Your task to perform on an android device: What is the news today? Image 0: 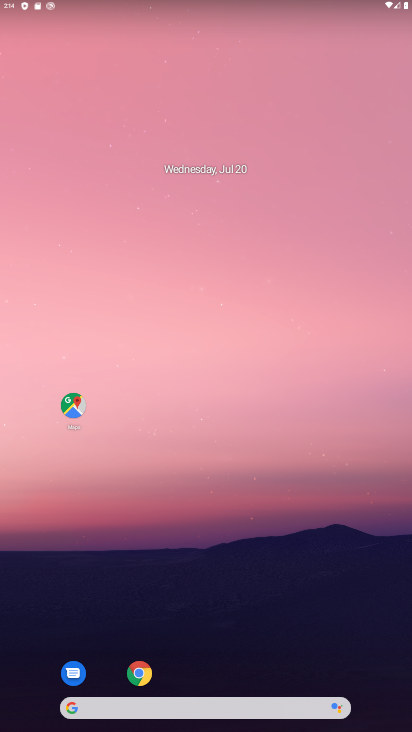
Step 0: drag from (15, 339) to (324, 359)
Your task to perform on an android device: What is the news today? Image 1: 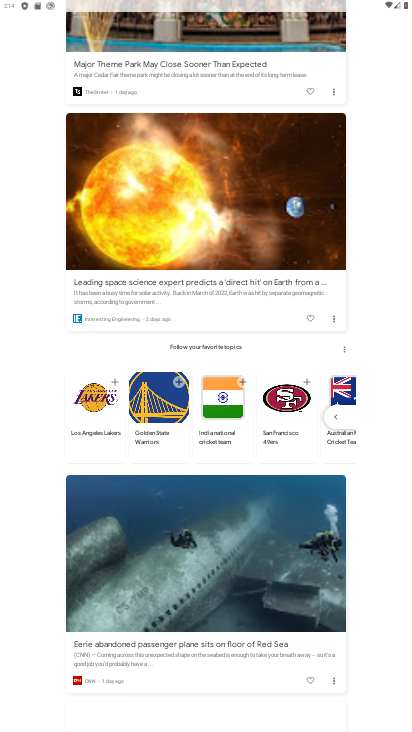
Step 1: task complete